Your task to perform on an android device: Go to sound settings Image 0: 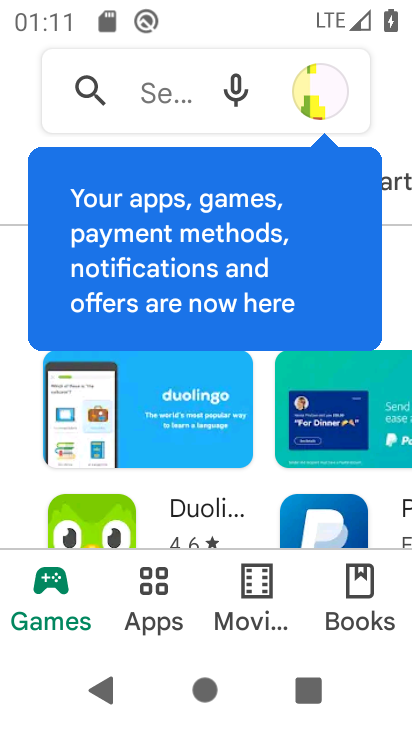
Step 0: press home button
Your task to perform on an android device: Go to sound settings Image 1: 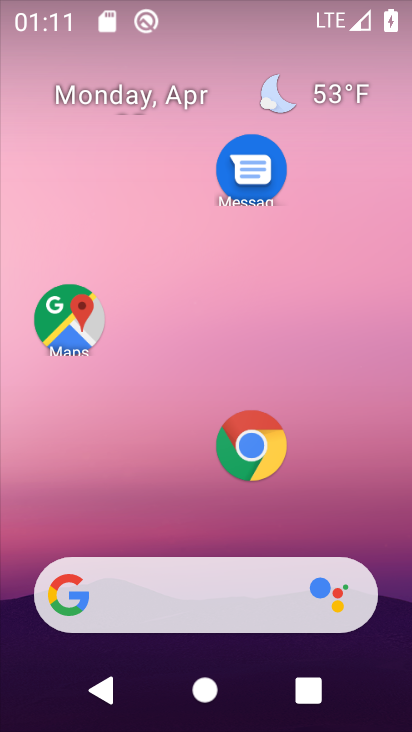
Step 1: drag from (197, 509) to (196, 50)
Your task to perform on an android device: Go to sound settings Image 2: 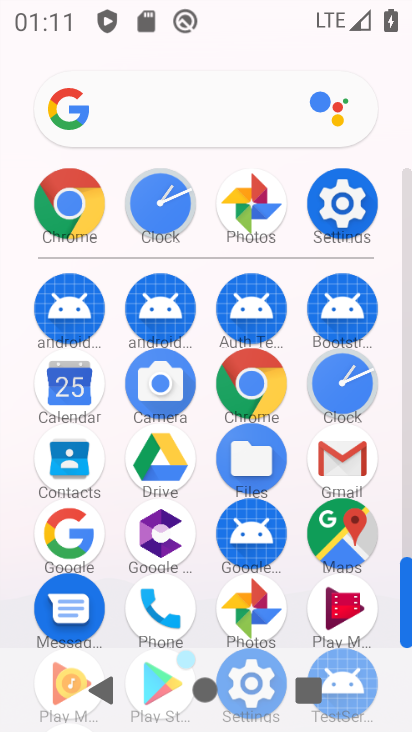
Step 2: click (347, 195)
Your task to perform on an android device: Go to sound settings Image 3: 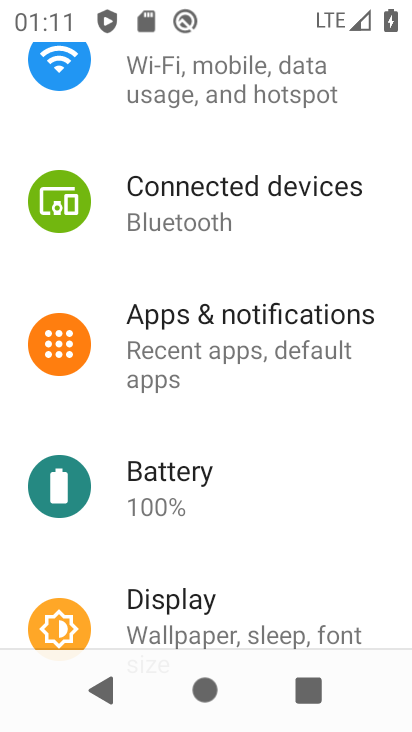
Step 3: drag from (181, 522) to (238, 183)
Your task to perform on an android device: Go to sound settings Image 4: 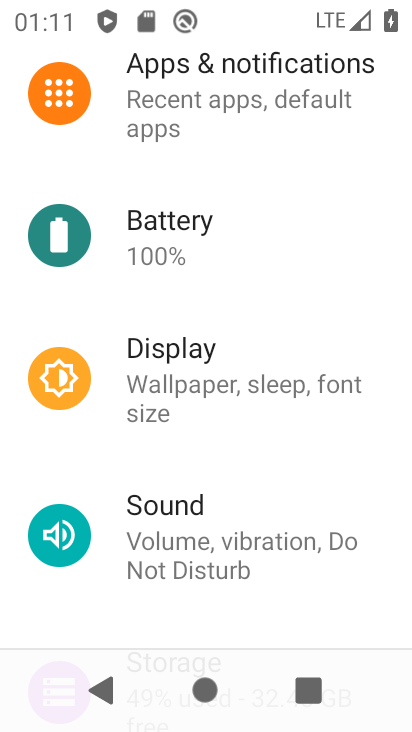
Step 4: click (194, 520)
Your task to perform on an android device: Go to sound settings Image 5: 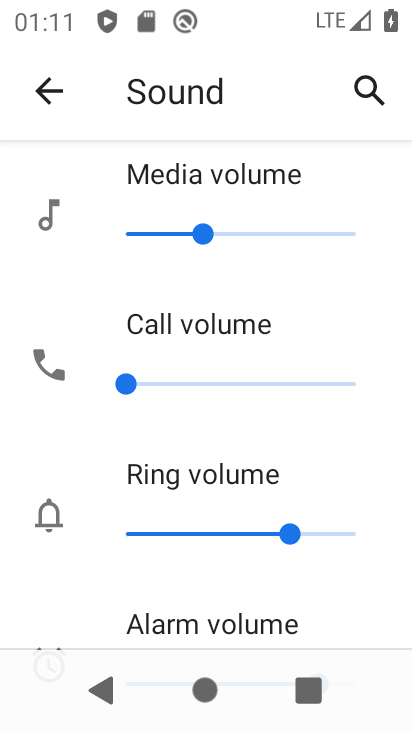
Step 5: task complete